Your task to perform on an android device: What's the weather going to be tomorrow? Image 0: 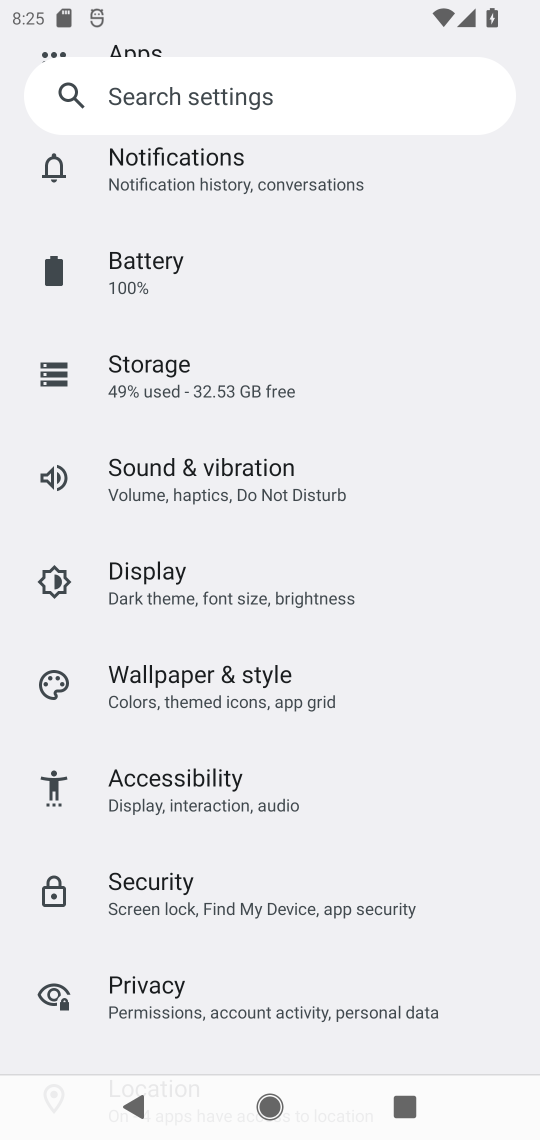
Step 0: press home button
Your task to perform on an android device: What's the weather going to be tomorrow? Image 1: 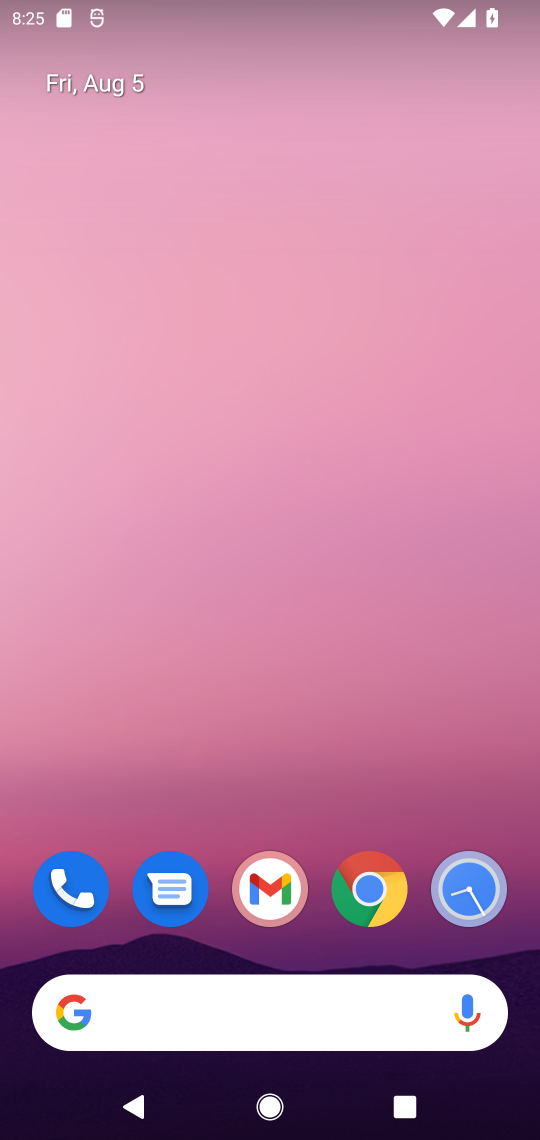
Step 1: drag from (270, 883) to (297, 269)
Your task to perform on an android device: What's the weather going to be tomorrow? Image 2: 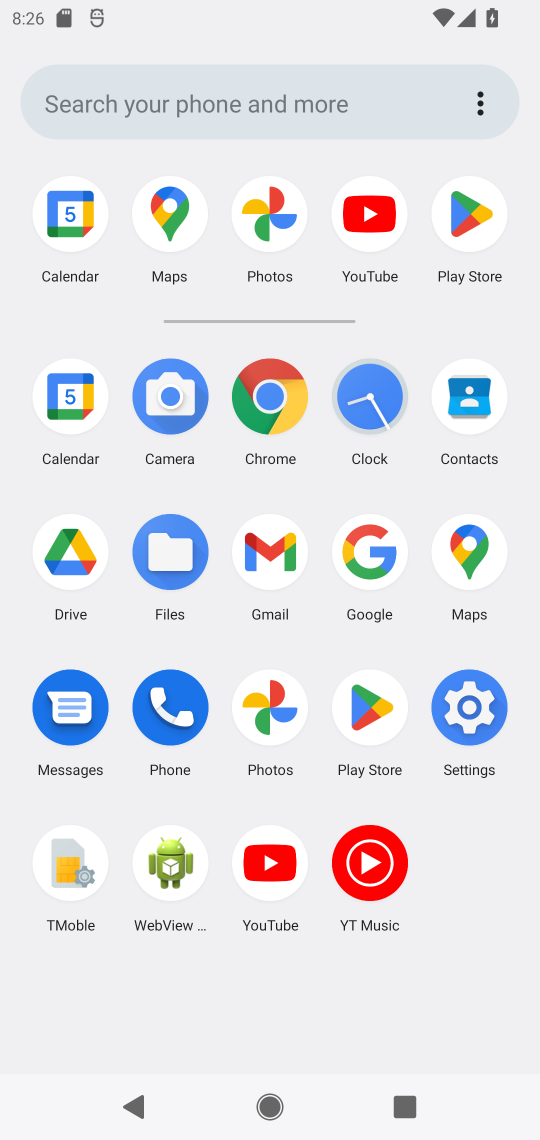
Step 2: click (278, 419)
Your task to perform on an android device: What's the weather going to be tomorrow? Image 3: 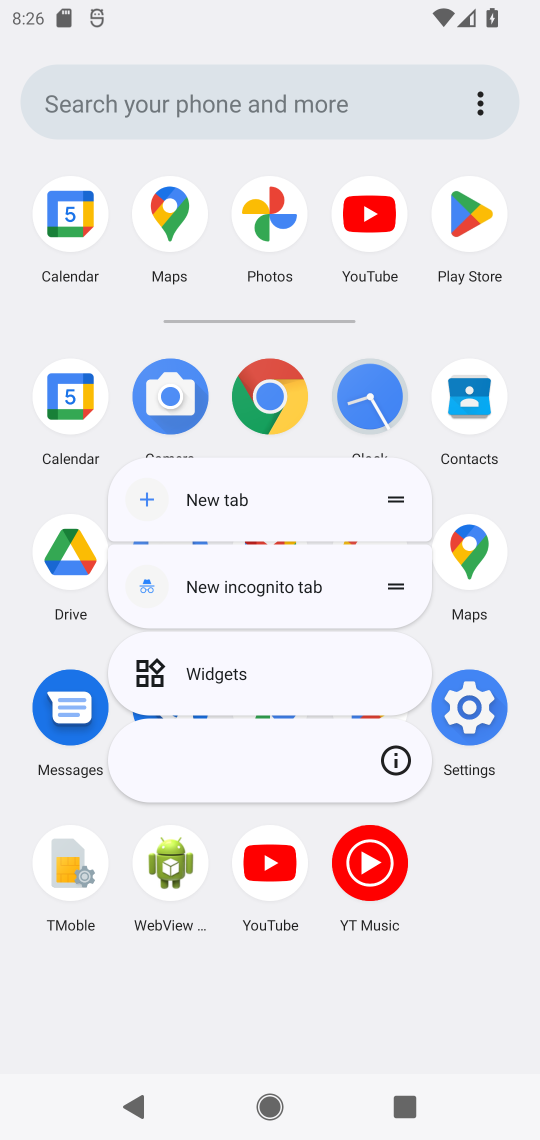
Step 3: click (282, 385)
Your task to perform on an android device: What's the weather going to be tomorrow? Image 4: 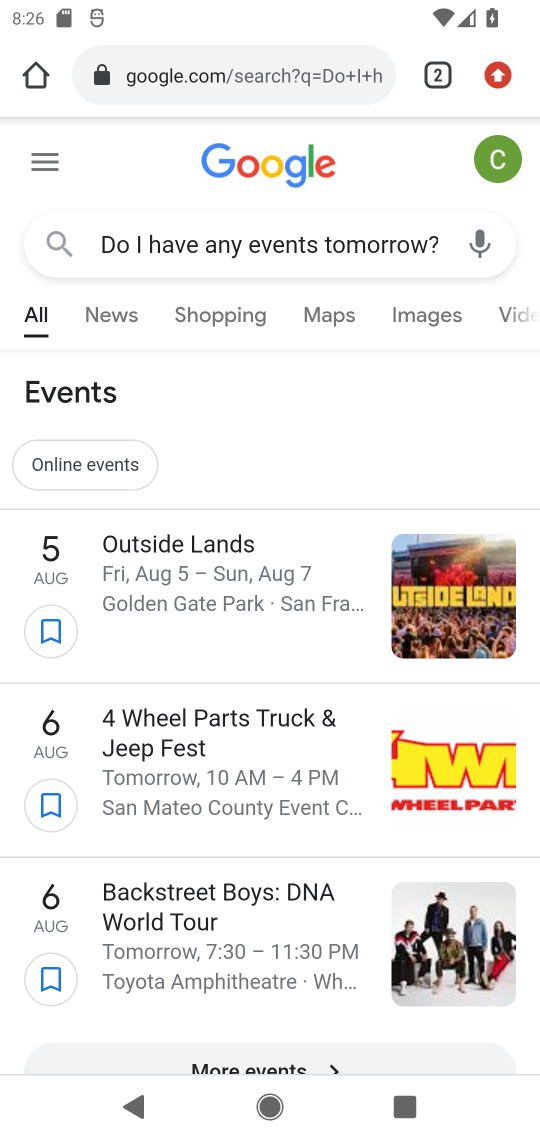
Step 4: click (502, 78)
Your task to perform on an android device: What's the weather going to be tomorrow? Image 5: 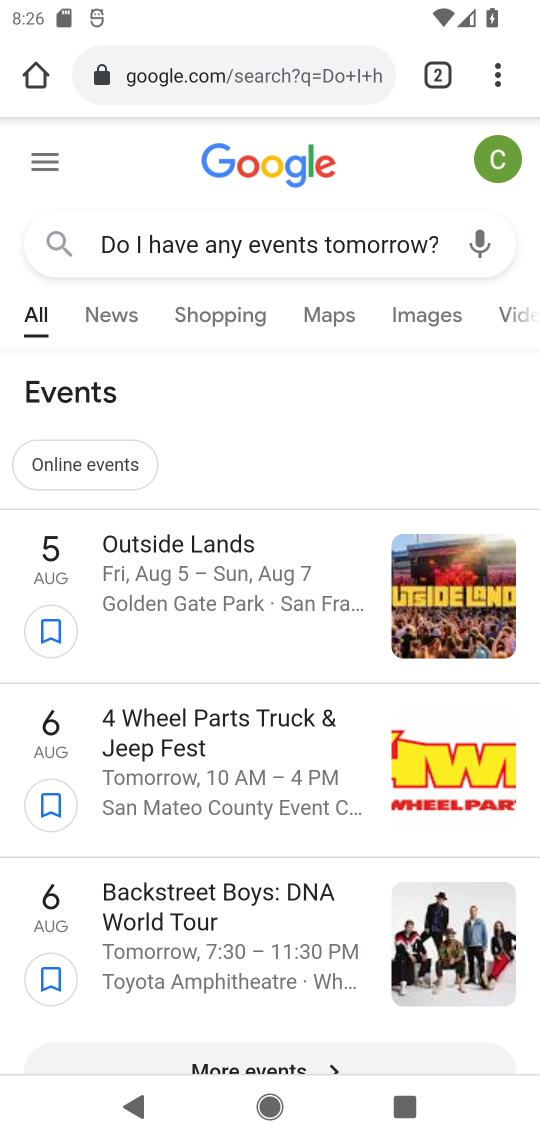
Step 5: click (515, 61)
Your task to perform on an android device: What's the weather going to be tomorrow? Image 6: 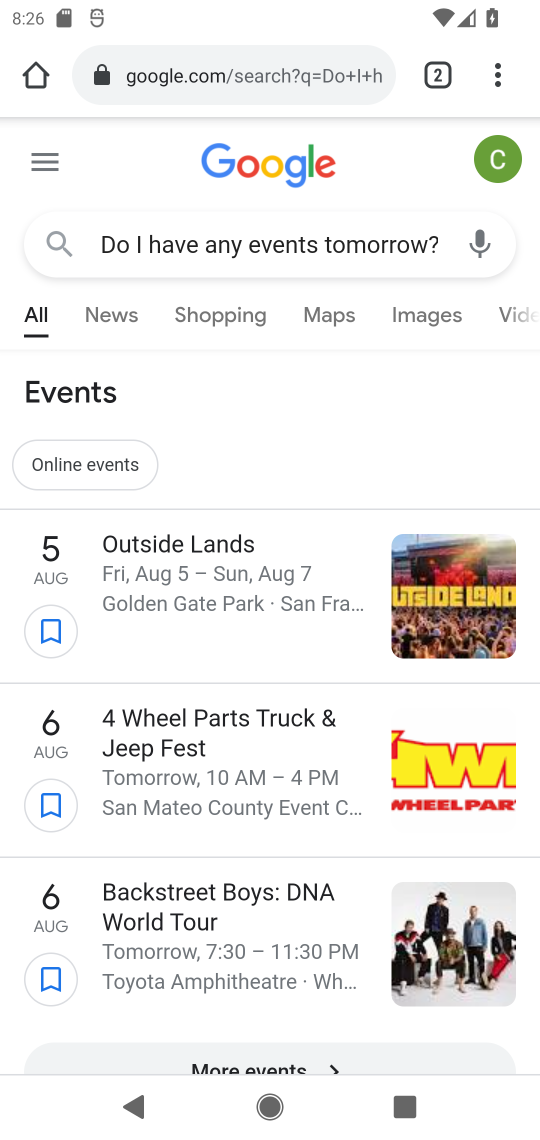
Step 6: click (516, 63)
Your task to perform on an android device: What's the weather going to be tomorrow? Image 7: 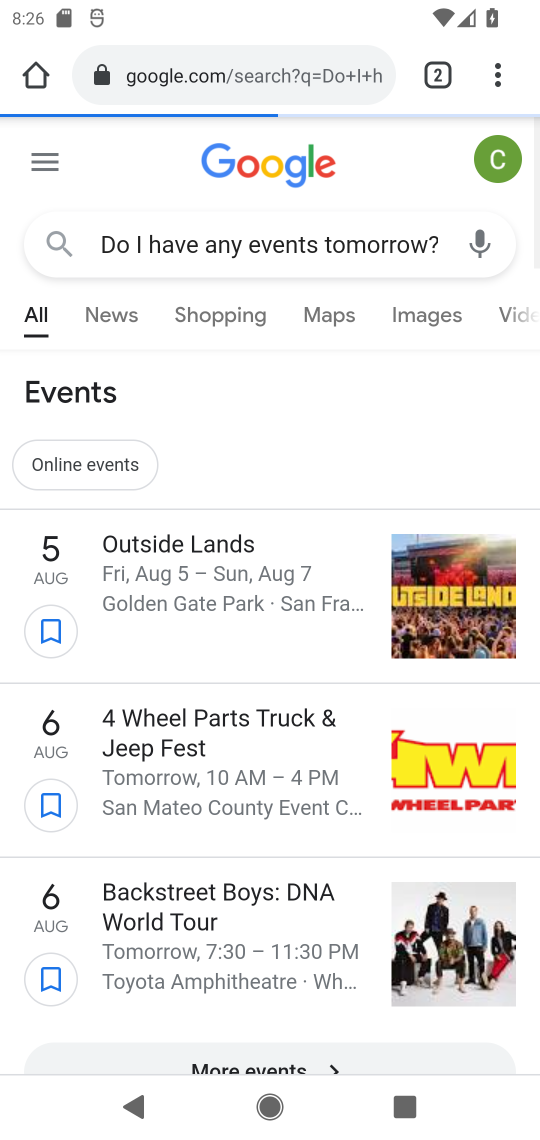
Step 7: click (496, 75)
Your task to perform on an android device: What's the weather going to be tomorrow? Image 8: 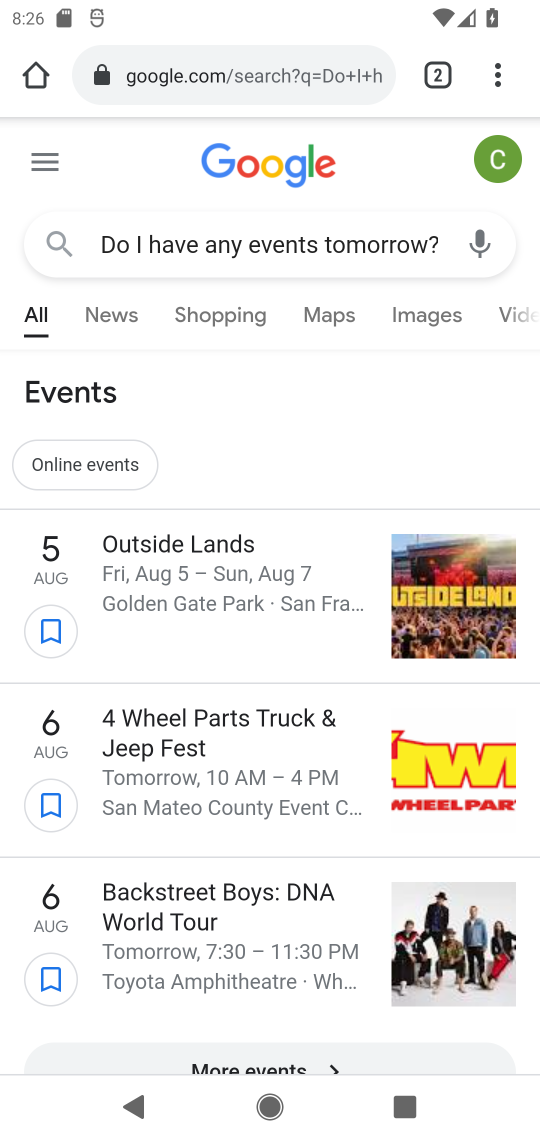
Step 8: click (494, 80)
Your task to perform on an android device: What's the weather going to be tomorrow? Image 9: 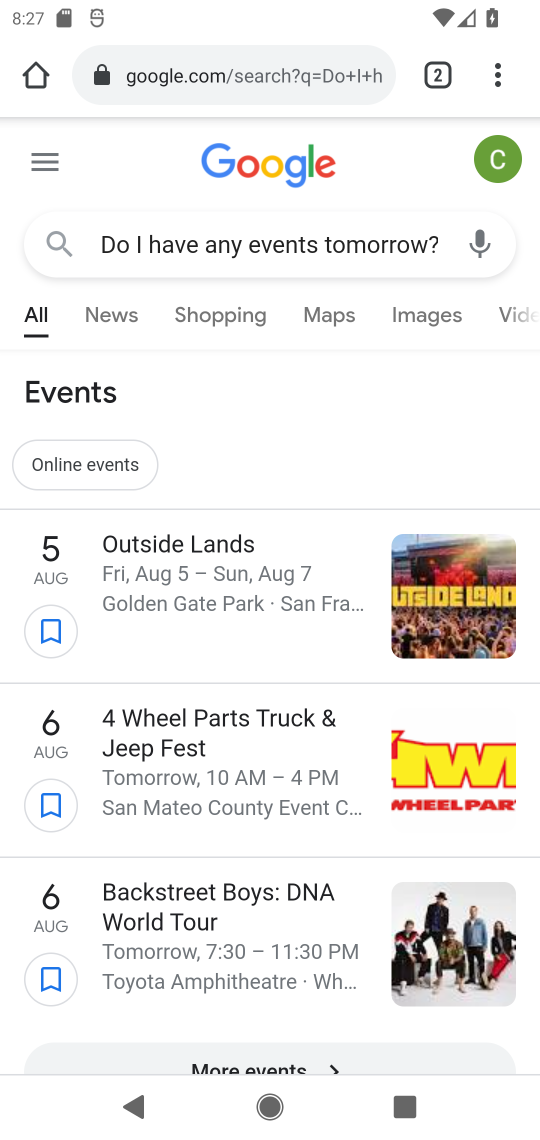
Step 9: click (505, 62)
Your task to perform on an android device: What's the weather going to be tomorrow? Image 10: 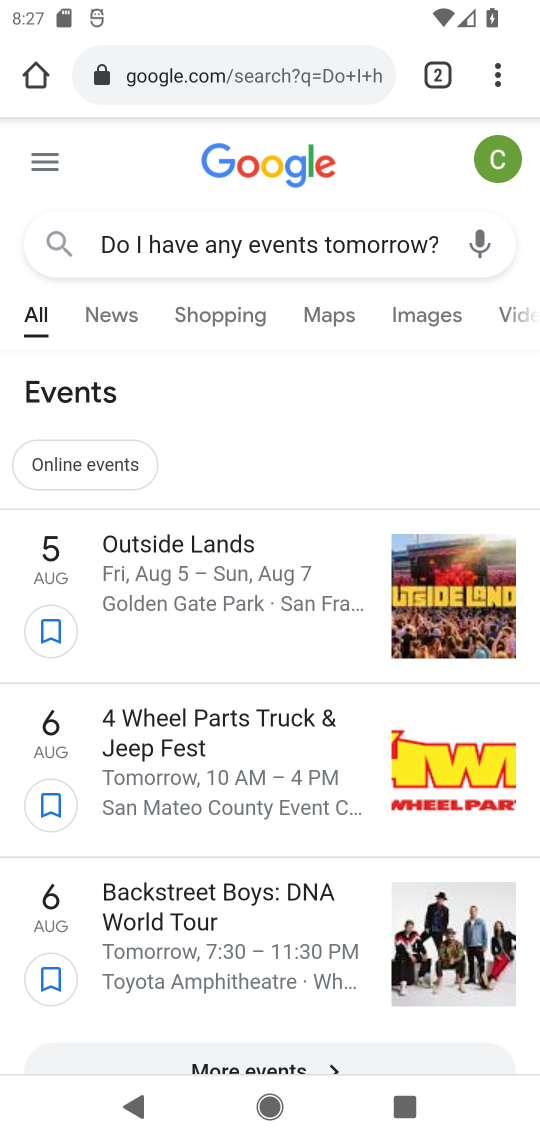
Step 10: click (498, 79)
Your task to perform on an android device: What's the weather going to be tomorrow? Image 11: 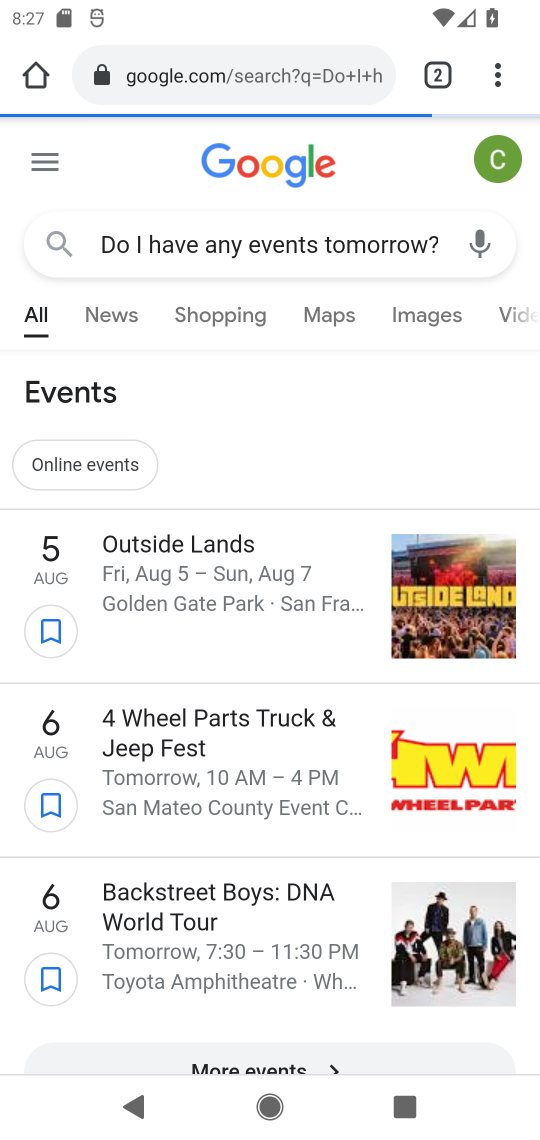
Step 11: click (484, 70)
Your task to perform on an android device: What's the weather going to be tomorrow? Image 12: 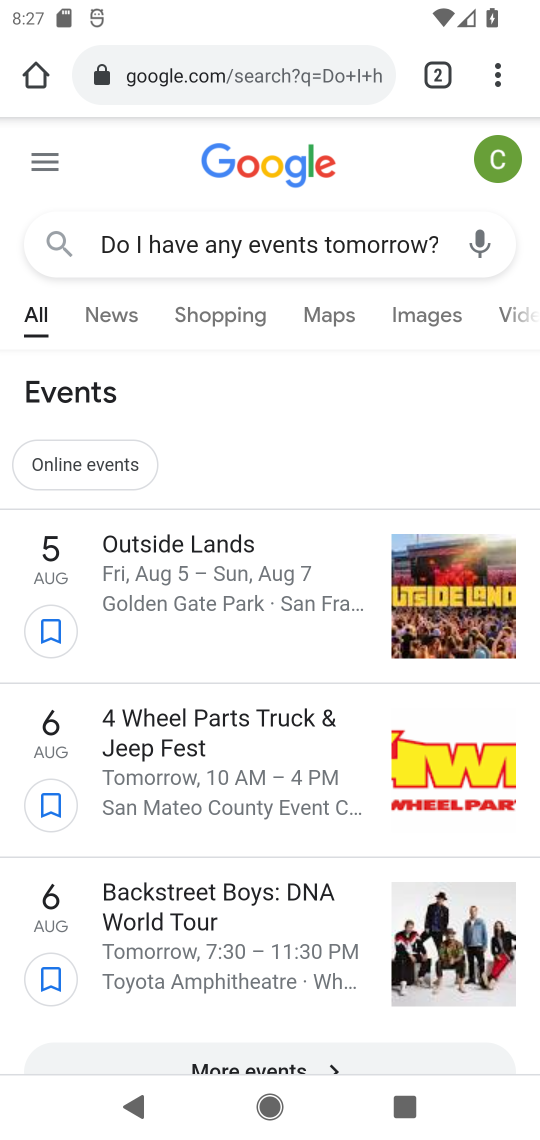
Step 12: click (484, 70)
Your task to perform on an android device: What's the weather going to be tomorrow? Image 13: 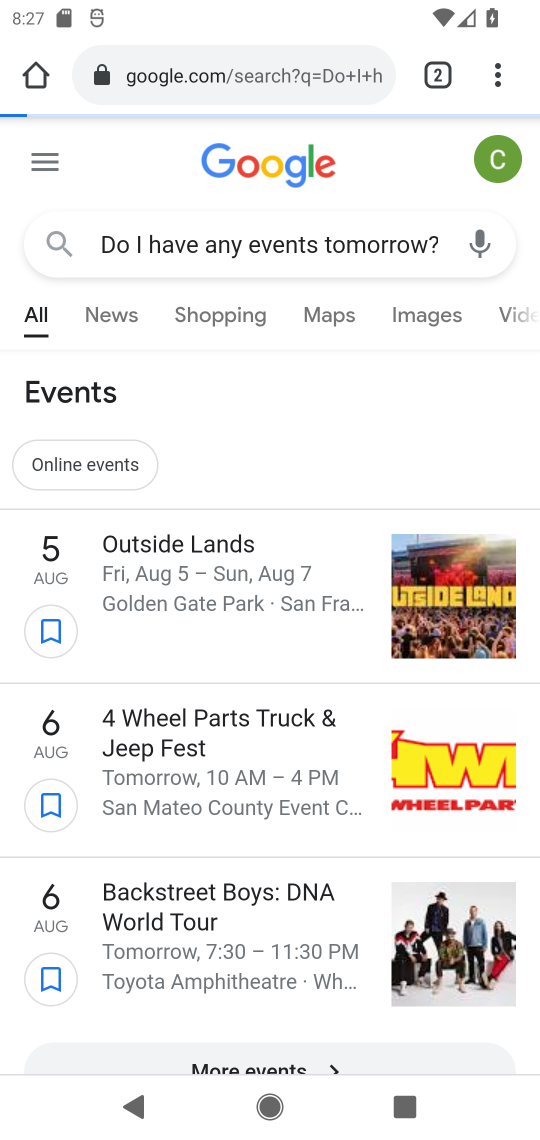
Step 13: click (484, 70)
Your task to perform on an android device: What's the weather going to be tomorrow? Image 14: 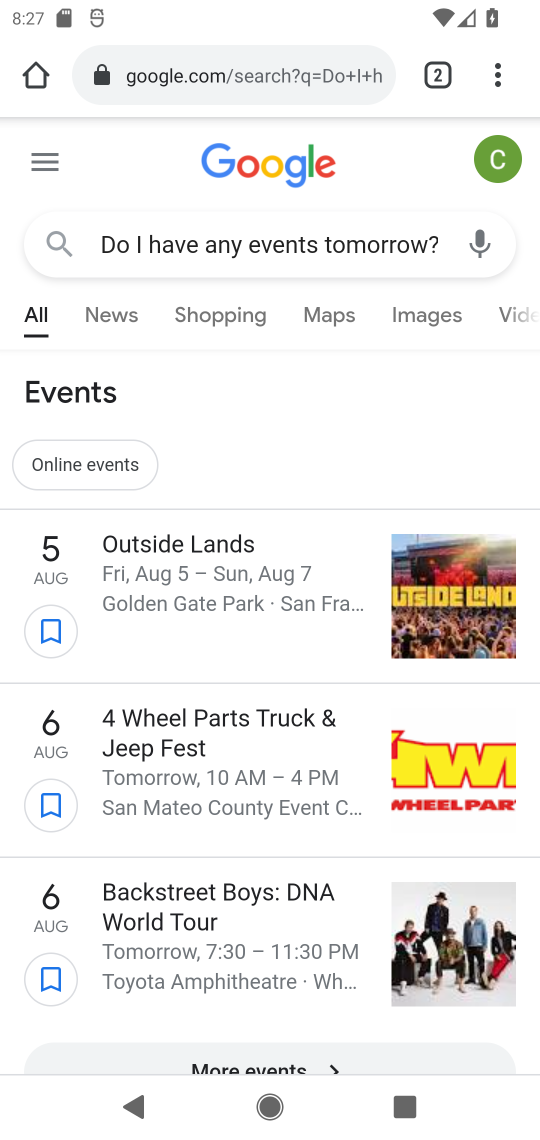
Step 14: click (506, 85)
Your task to perform on an android device: What's the weather going to be tomorrow? Image 15: 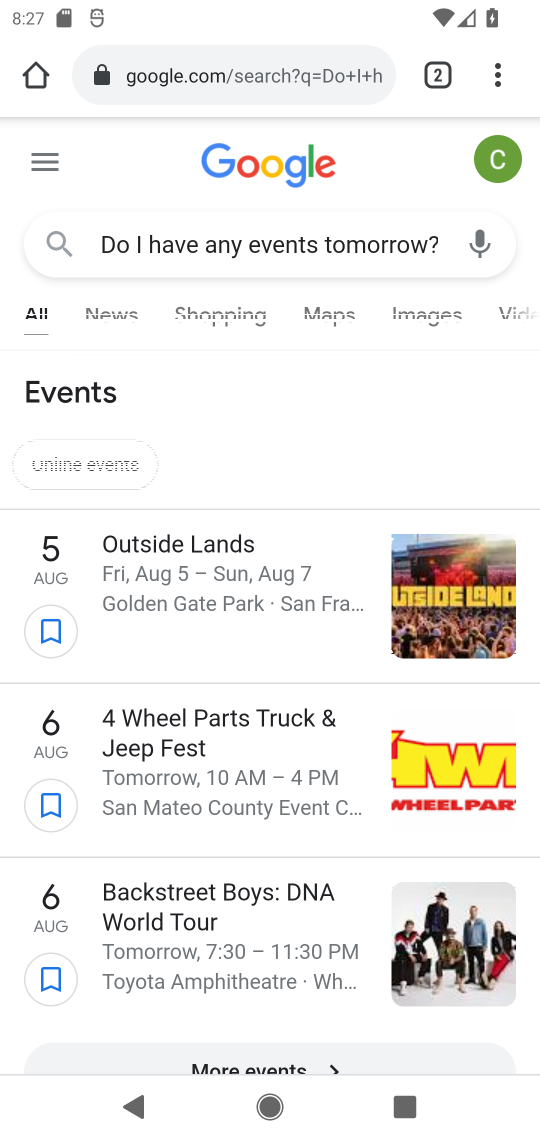
Step 15: click (506, 85)
Your task to perform on an android device: What's the weather going to be tomorrow? Image 16: 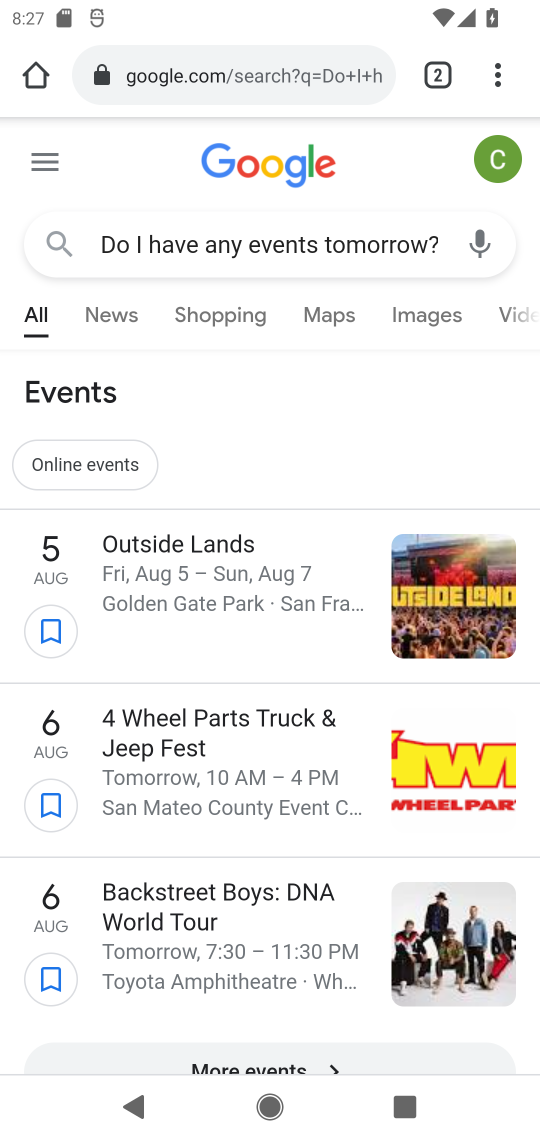
Step 16: click (498, 79)
Your task to perform on an android device: What's the weather going to be tomorrow? Image 17: 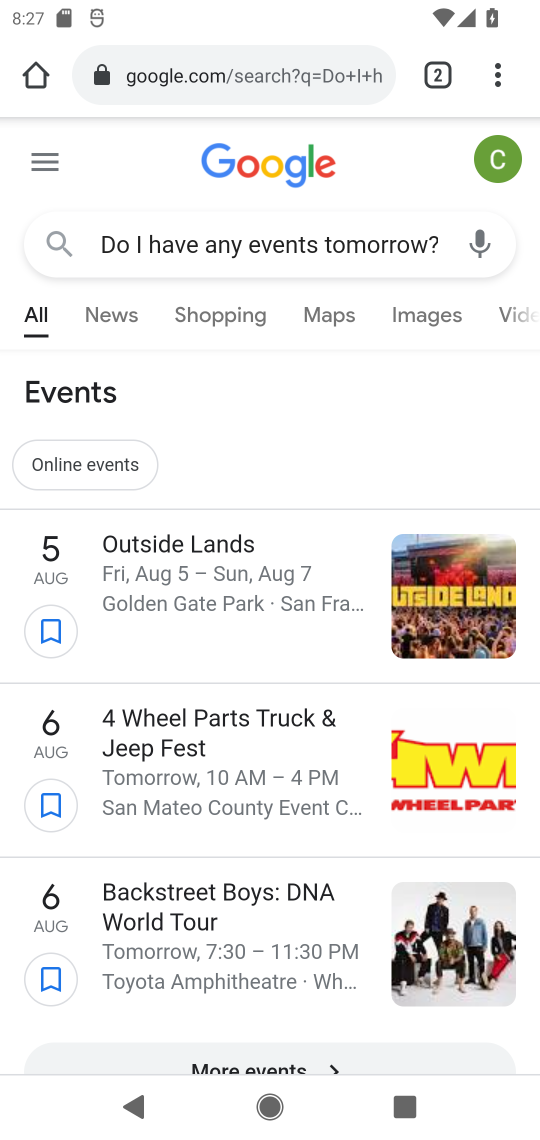
Step 17: click (507, 82)
Your task to perform on an android device: What's the weather going to be tomorrow? Image 18: 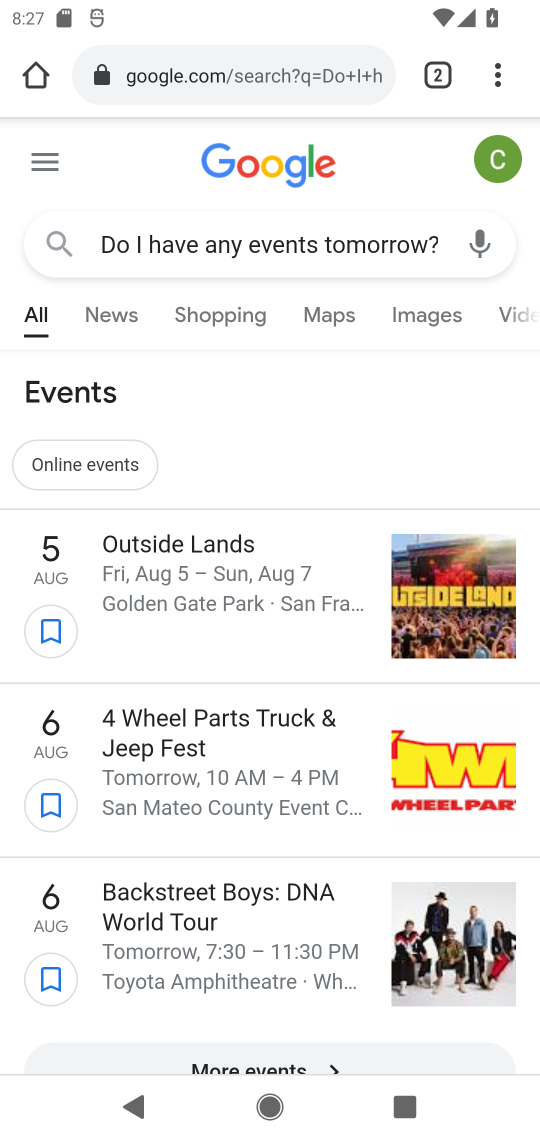
Step 18: click (507, 82)
Your task to perform on an android device: What's the weather going to be tomorrow? Image 19: 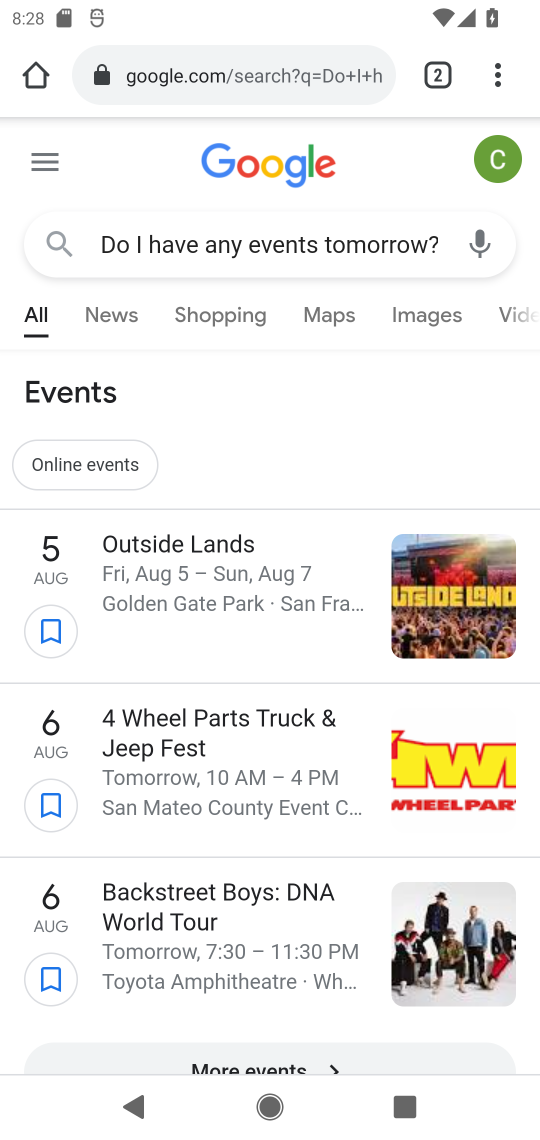
Step 19: click (507, 87)
Your task to perform on an android device: What's the weather going to be tomorrow? Image 20: 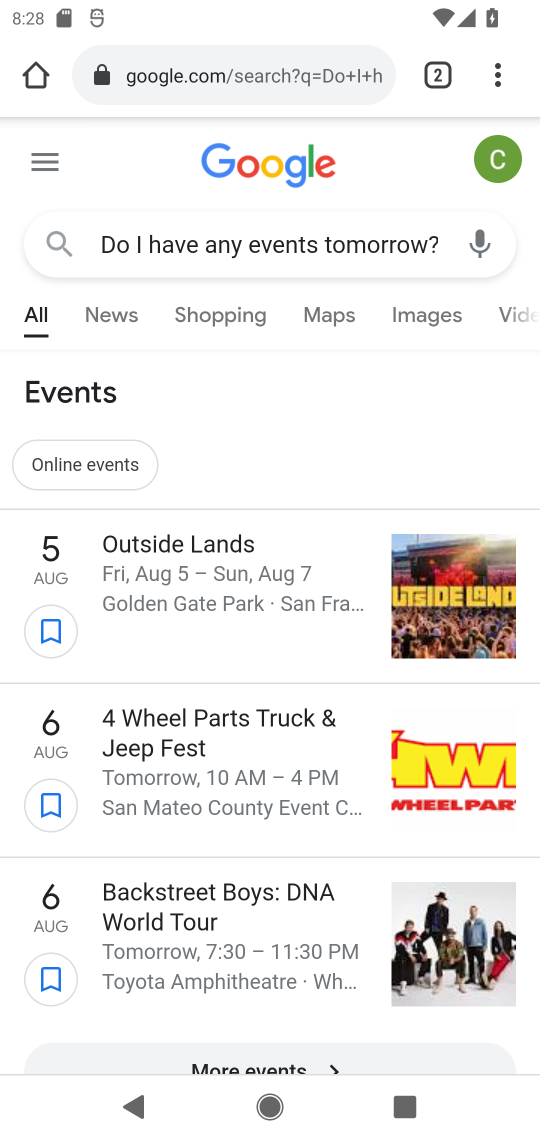
Step 20: click (487, 79)
Your task to perform on an android device: What's the weather going to be tomorrow? Image 21: 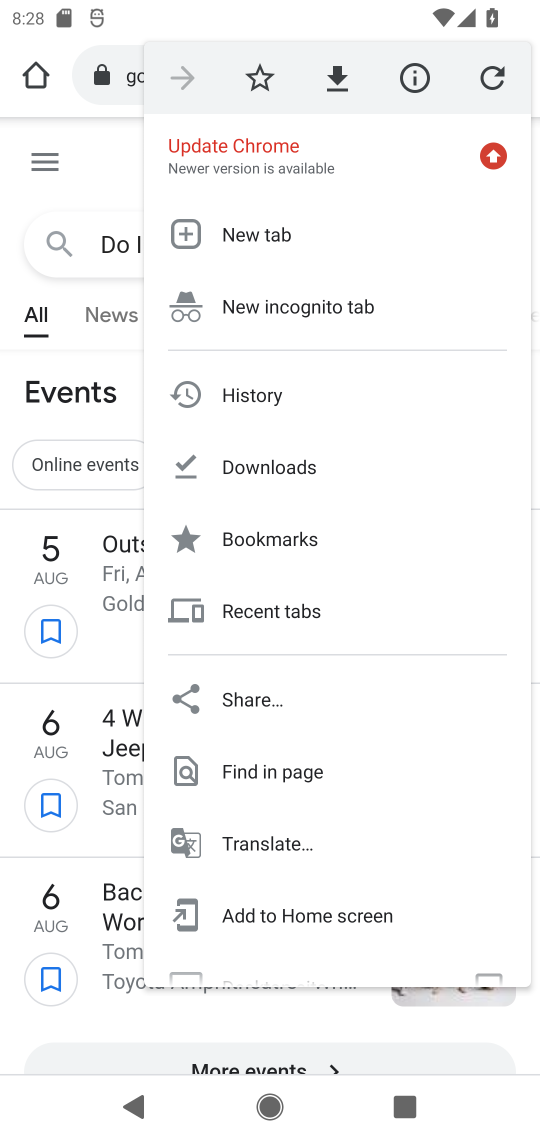
Step 21: click (250, 217)
Your task to perform on an android device: What's the weather going to be tomorrow? Image 22: 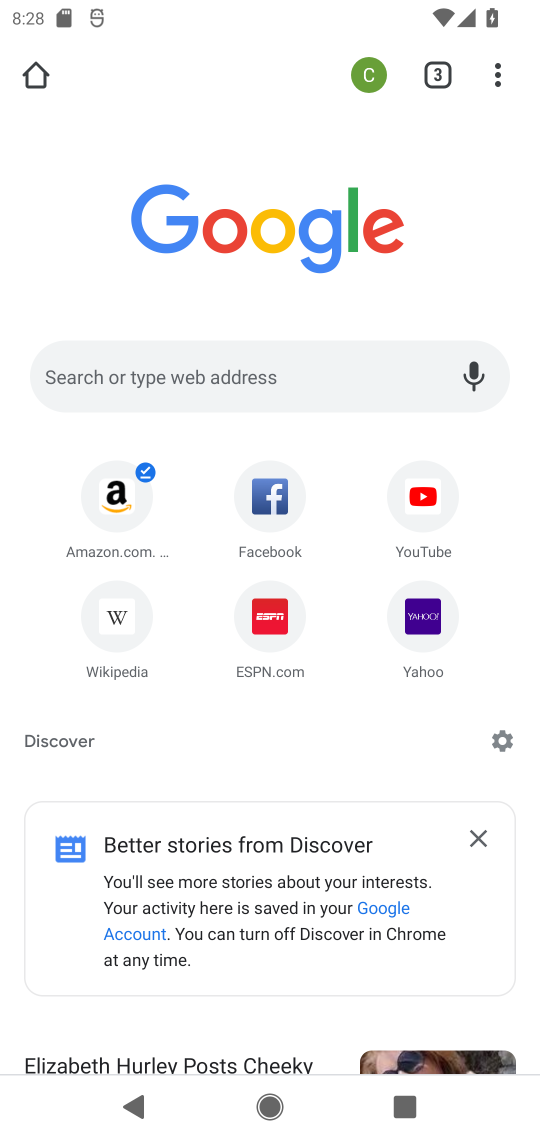
Step 22: click (169, 361)
Your task to perform on an android device: What's the weather going to be tomorrow? Image 23: 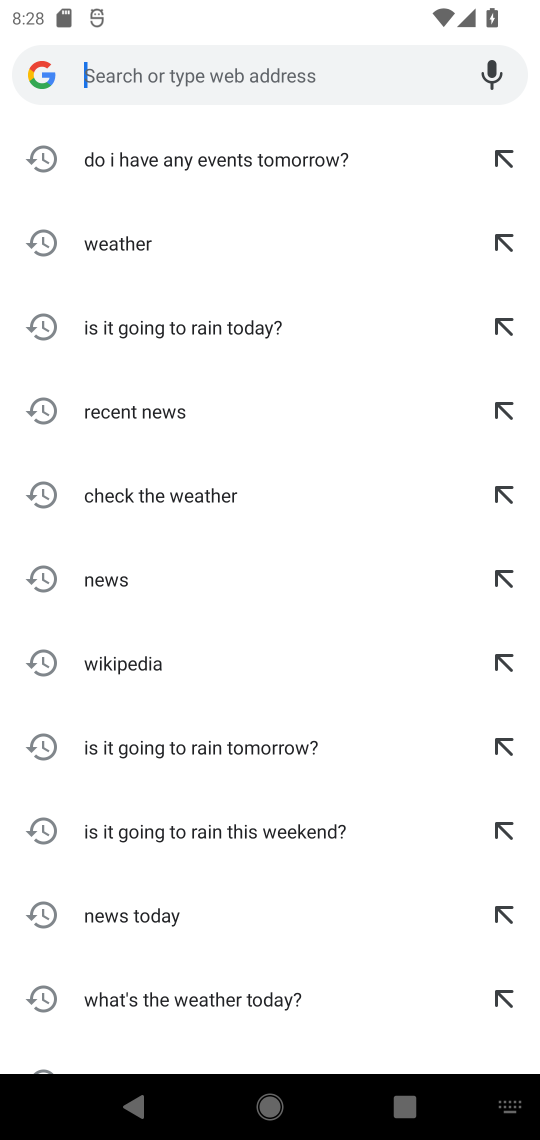
Step 23: type "What's the weather going to be tomorrow? "
Your task to perform on an android device: What's the weather going to be tomorrow? Image 24: 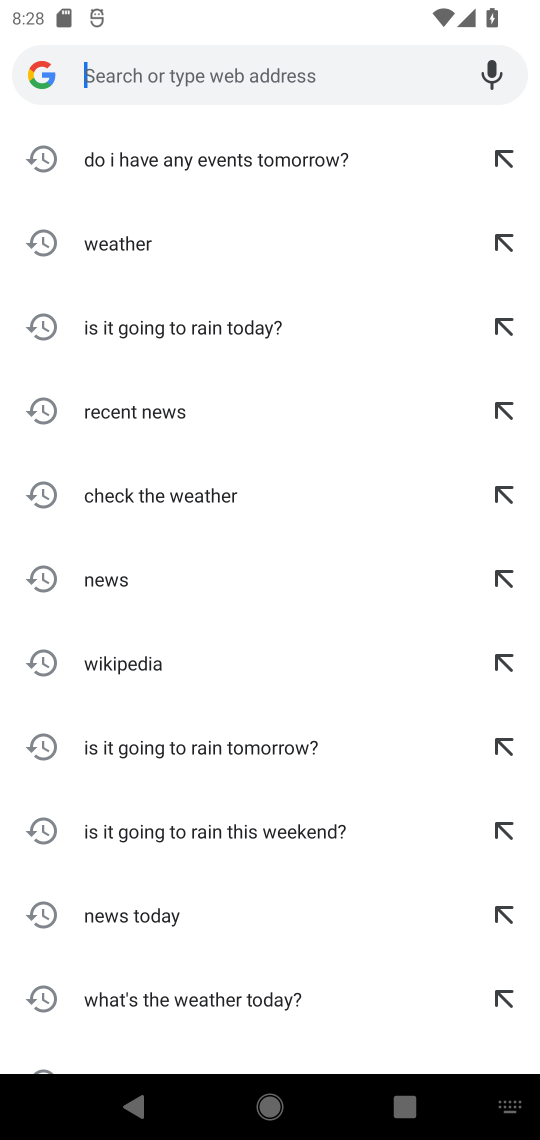
Step 24: click (224, 138)
Your task to perform on an android device: What's the weather going to be tomorrow? Image 25: 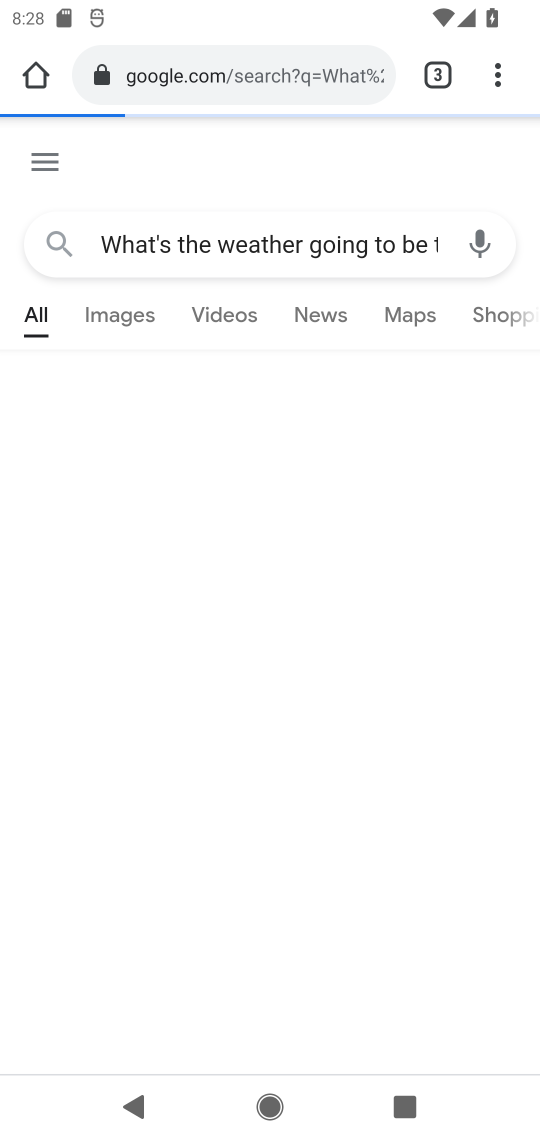
Step 25: click (265, 148)
Your task to perform on an android device: What's the weather going to be tomorrow? Image 26: 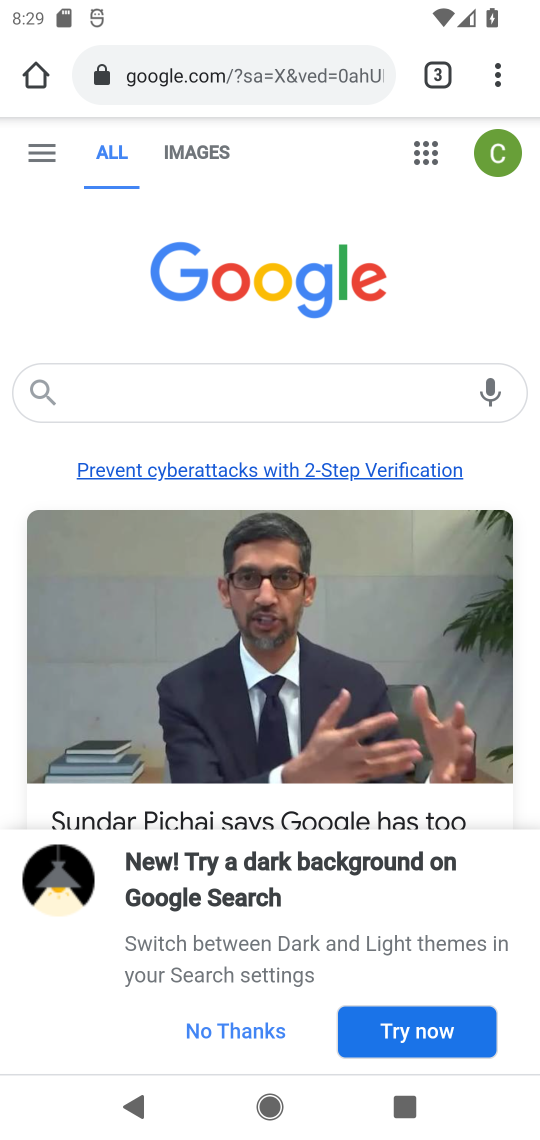
Step 26: click (288, 383)
Your task to perform on an android device: What's the weather going to be tomorrow? Image 27: 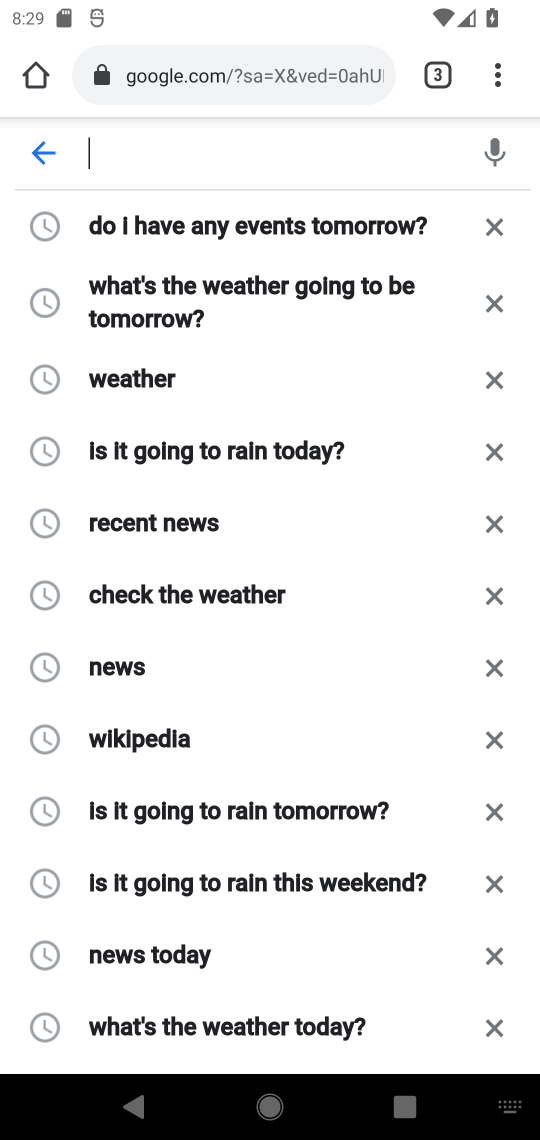
Step 27: type "What's the weather going to be tomorrow? "
Your task to perform on an android device: What's the weather going to be tomorrow? Image 28: 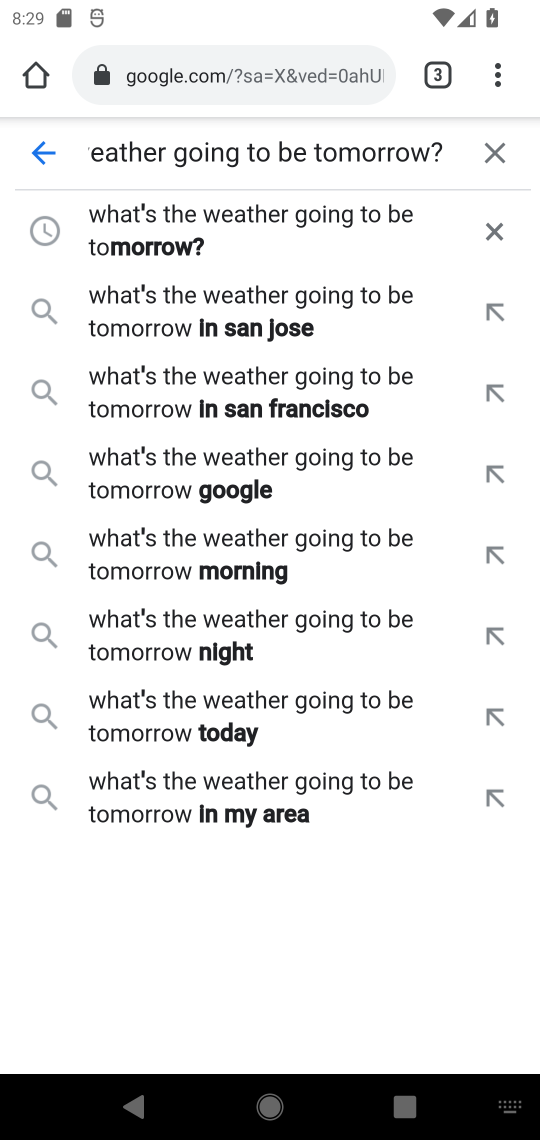
Step 28: click (227, 214)
Your task to perform on an android device: What's the weather going to be tomorrow? Image 29: 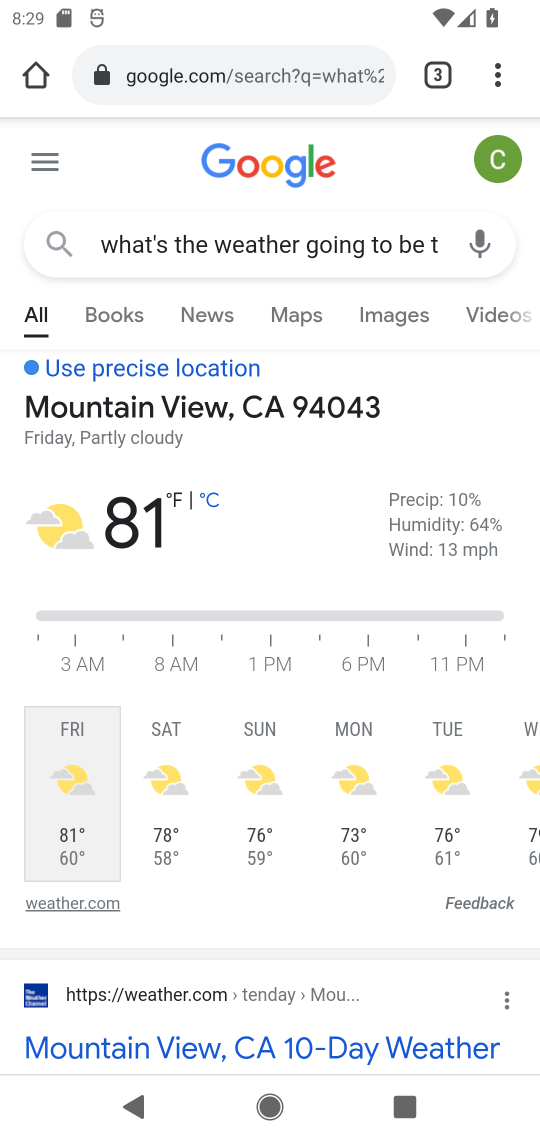
Step 29: task complete